Your task to perform on an android device: turn on translation in the chrome app Image 0: 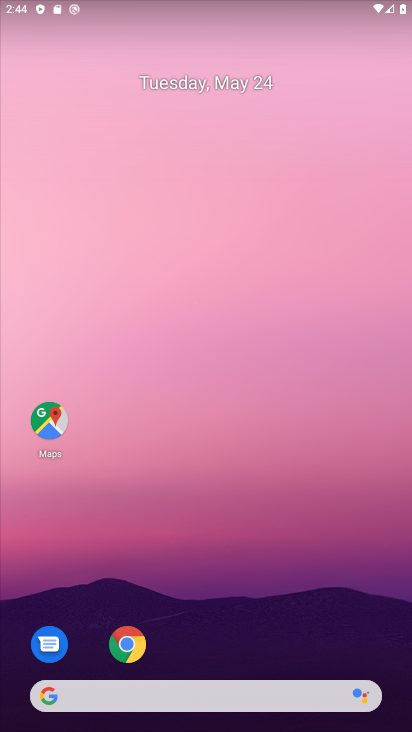
Step 0: drag from (216, 586) to (254, 216)
Your task to perform on an android device: turn on translation in the chrome app Image 1: 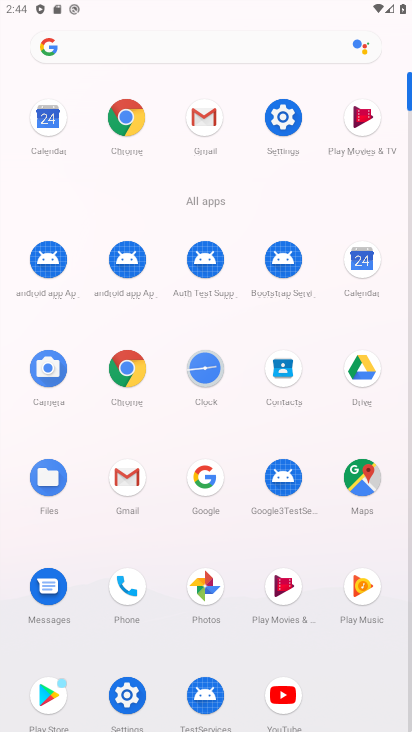
Step 1: click (133, 376)
Your task to perform on an android device: turn on translation in the chrome app Image 2: 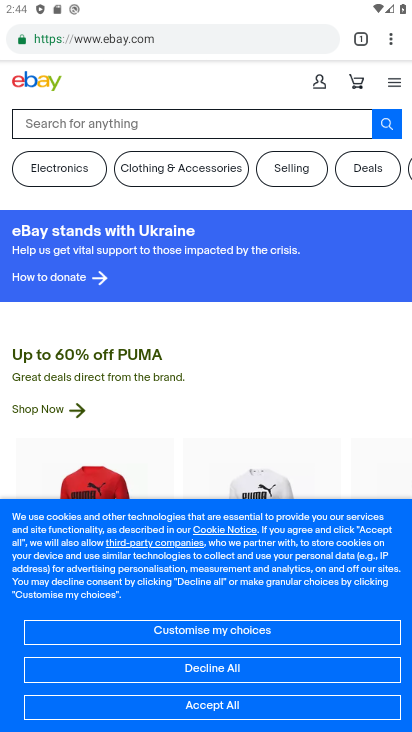
Step 2: drag from (392, 43) to (275, 470)
Your task to perform on an android device: turn on translation in the chrome app Image 3: 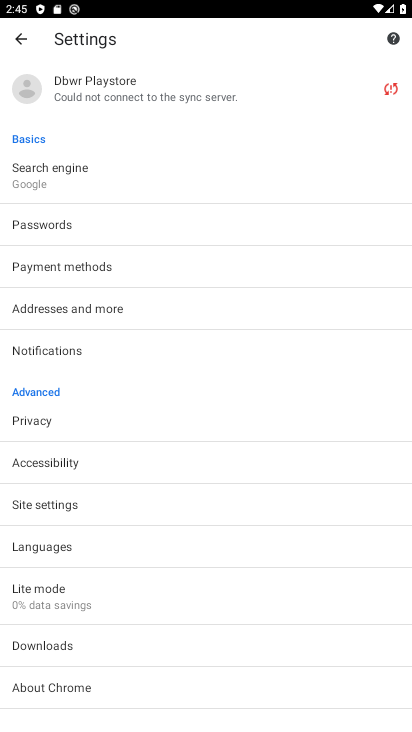
Step 3: click (75, 556)
Your task to perform on an android device: turn on translation in the chrome app Image 4: 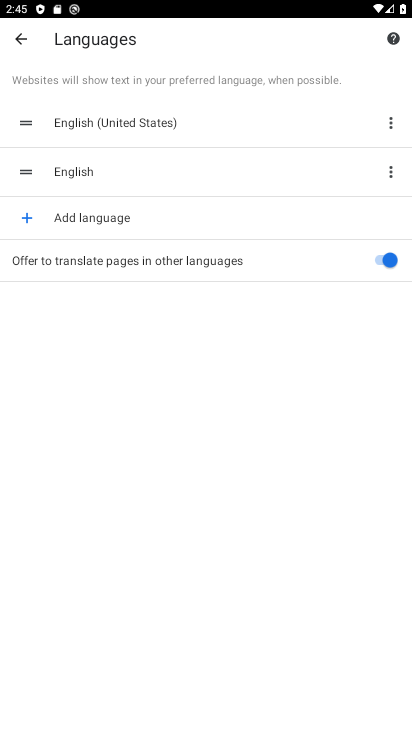
Step 4: task complete